Your task to perform on an android device: Go to internet settings Image 0: 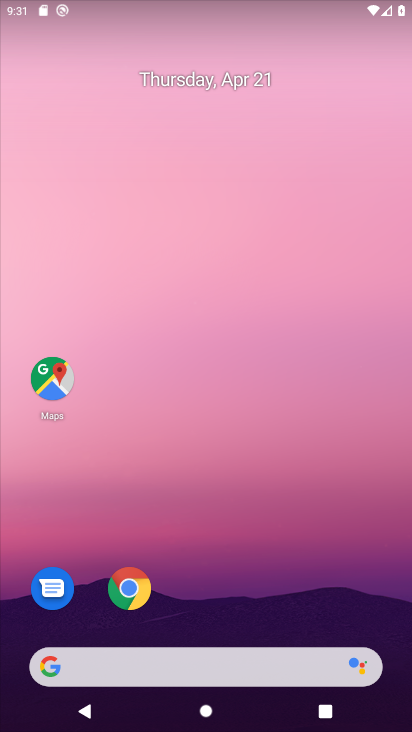
Step 0: drag from (285, 607) to (292, 14)
Your task to perform on an android device: Go to internet settings Image 1: 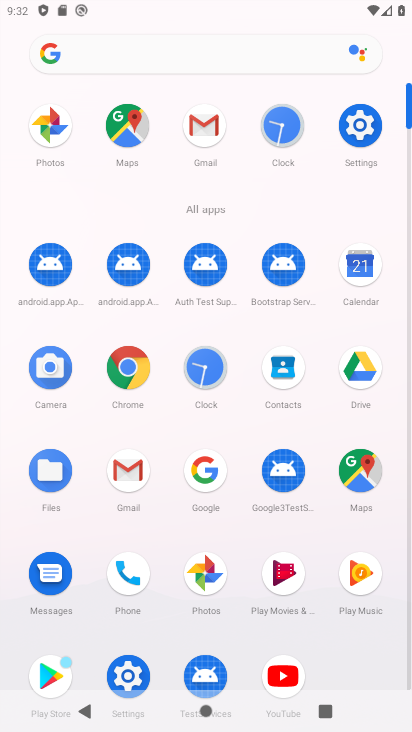
Step 1: click (356, 135)
Your task to perform on an android device: Go to internet settings Image 2: 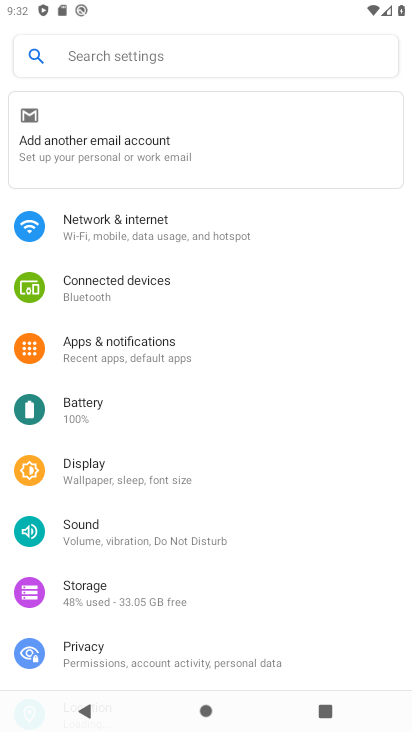
Step 2: click (185, 237)
Your task to perform on an android device: Go to internet settings Image 3: 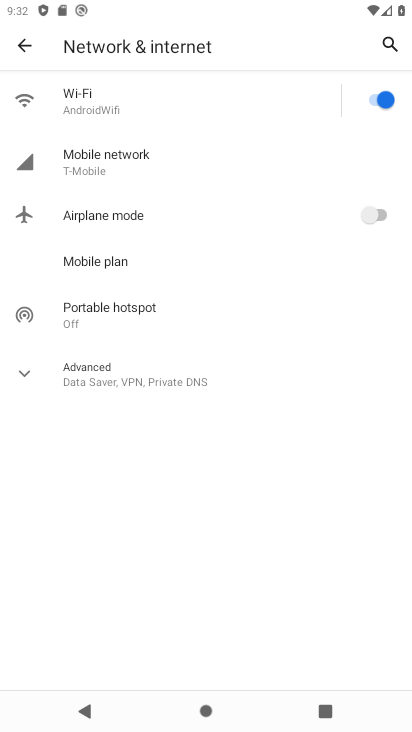
Step 3: task complete